Your task to perform on an android device: open app "Facebook Lite" (install if not already installed) Image 0: 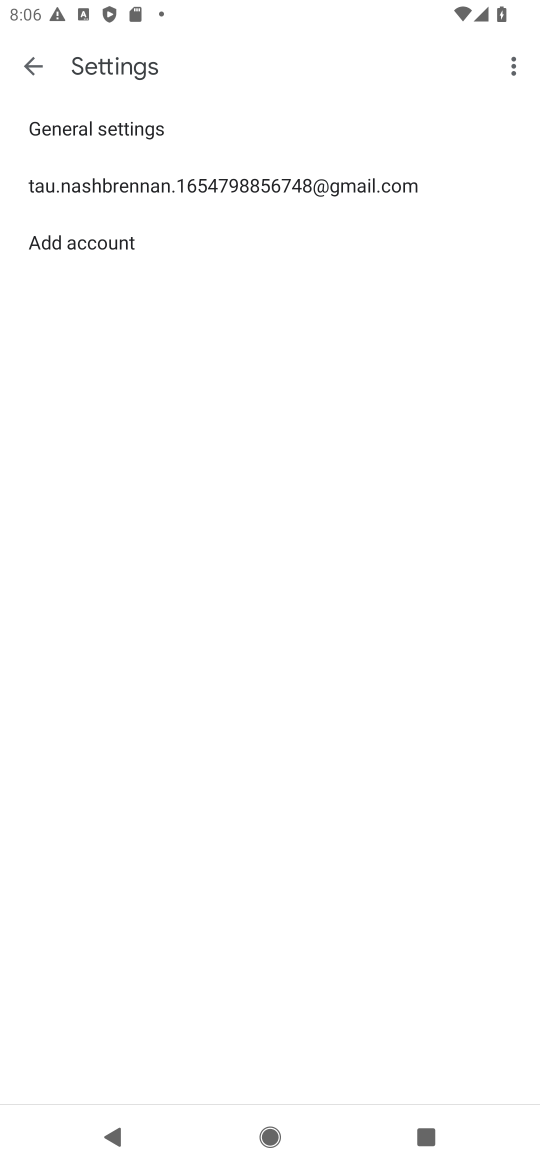
Step 0: press home button
Your task to perform on an android device: open app "Facebook Lite" (install if not already installed) Image 1: 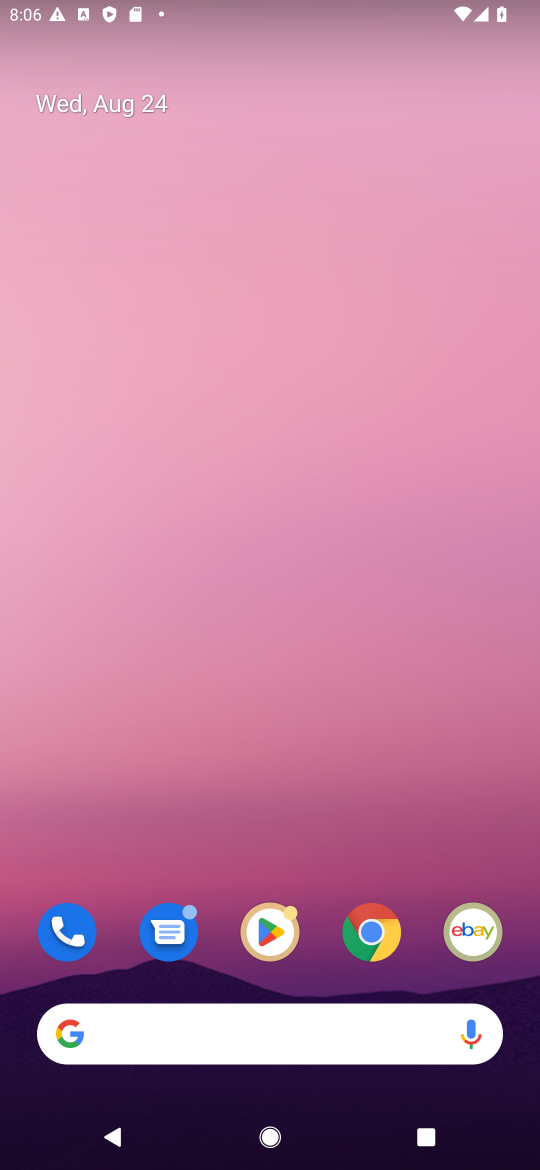
Step 1: click (272, 929)
Your task to perform on an android device: open app "Facebook Lite" (install if not already installed) Image 2: 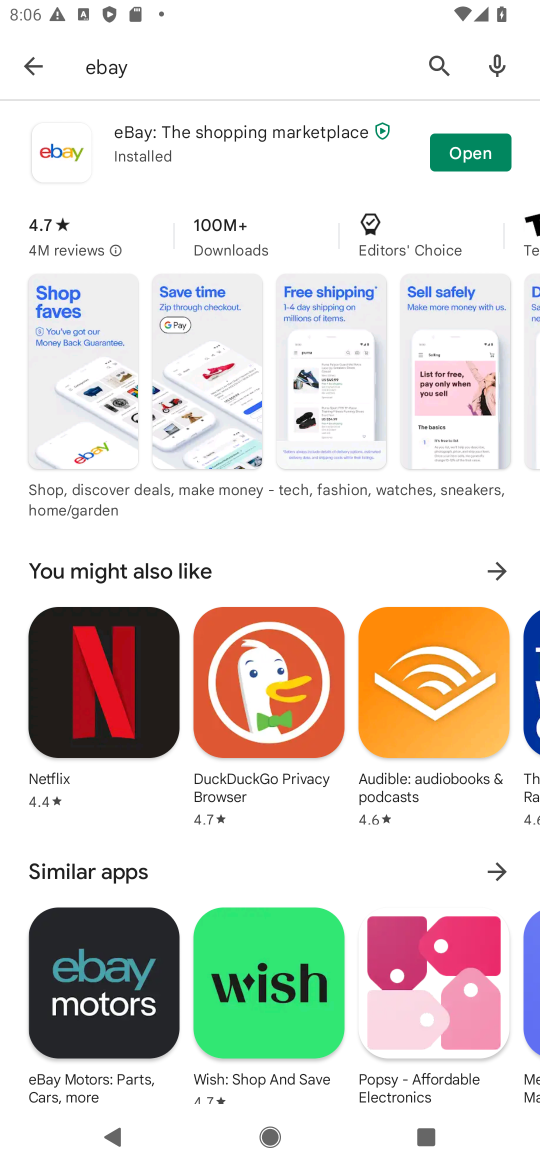
Step 2: click (178, 67)
Your task to perform on an android device: open app "Facebook Lite" (install if not already installed) Image 3: 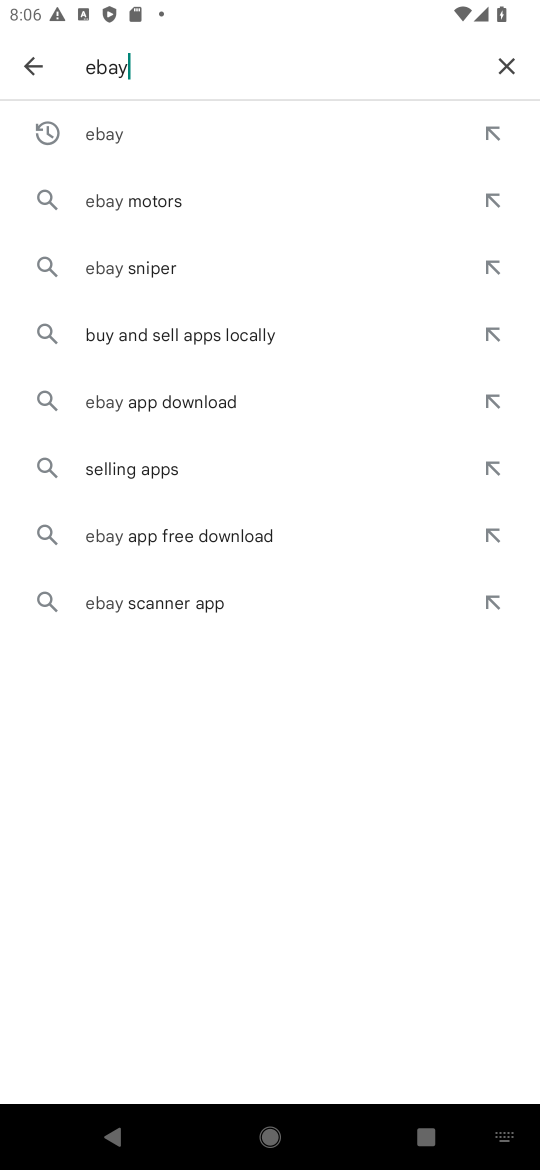
Step 3: click (507, 70)
Your task to perform on an android device: open app "Facebook Lite" (install if not already installed) Image 4: 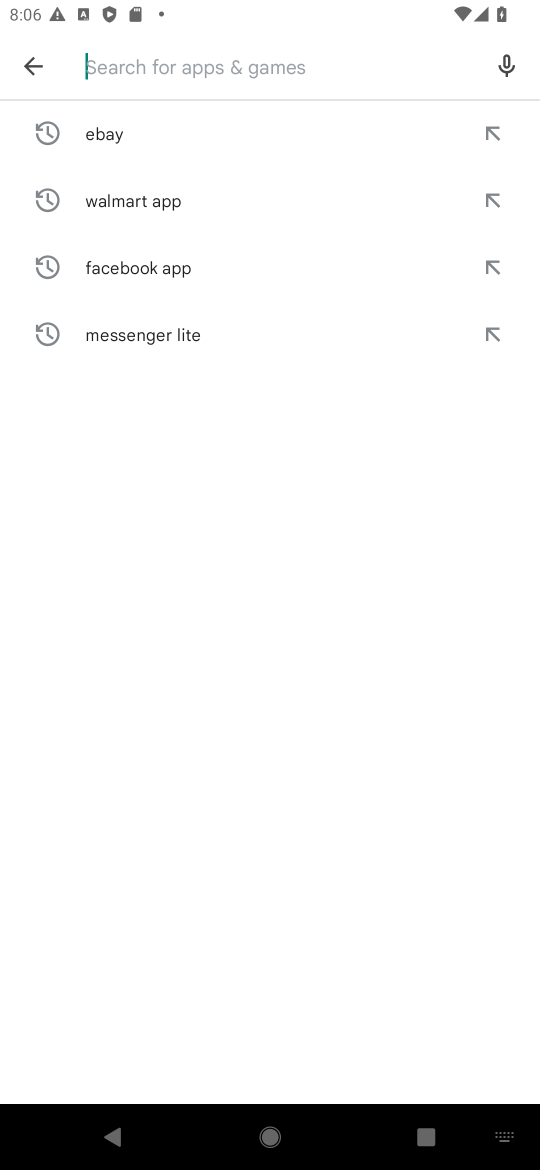
Step 4: type "facebook lite"
Your task to perform on an android device: open app "Facebook Lite" (install if not already installed) Image 5: 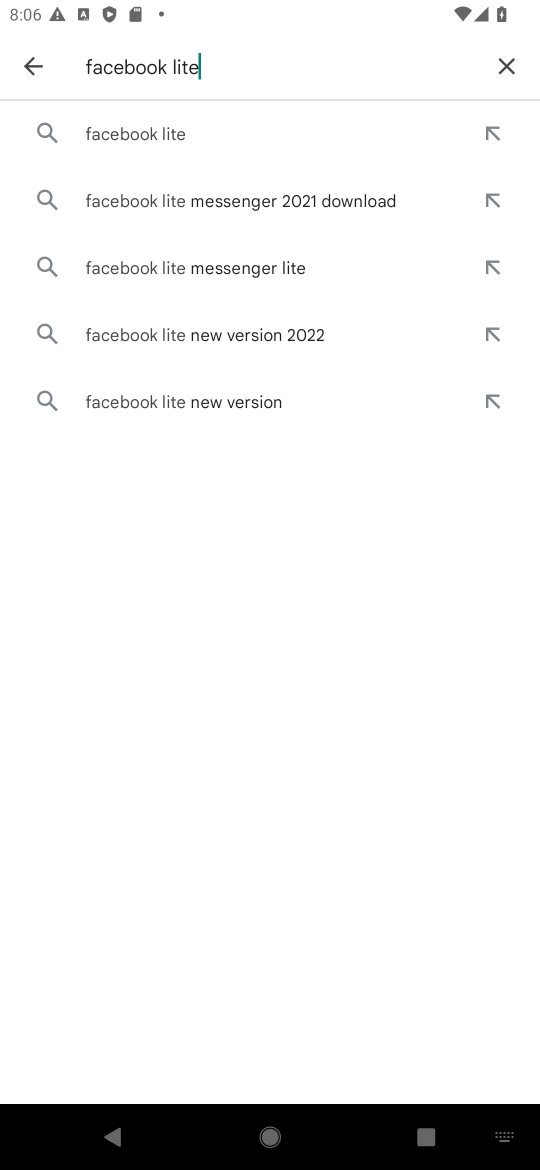
Step 5: click (127, 147)
Your task to perform on an android device: open app "Facebook Lite" (install if not already installed) Image 6: 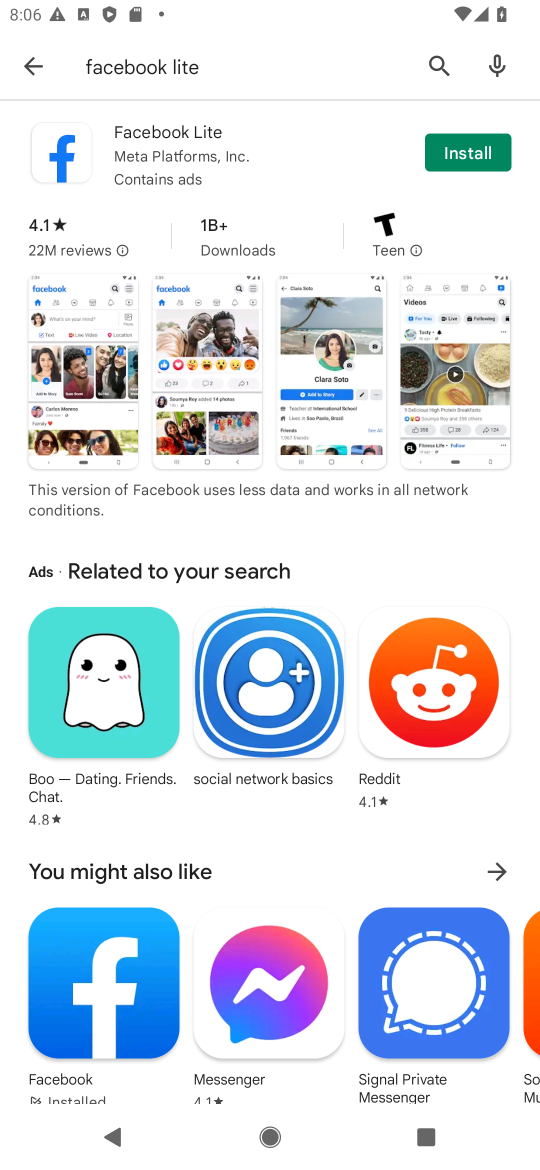
Step 6: click (469, 152)
Your task to perform on an android device: open app "Facebook Lite" (install if not already installed) Image 7: 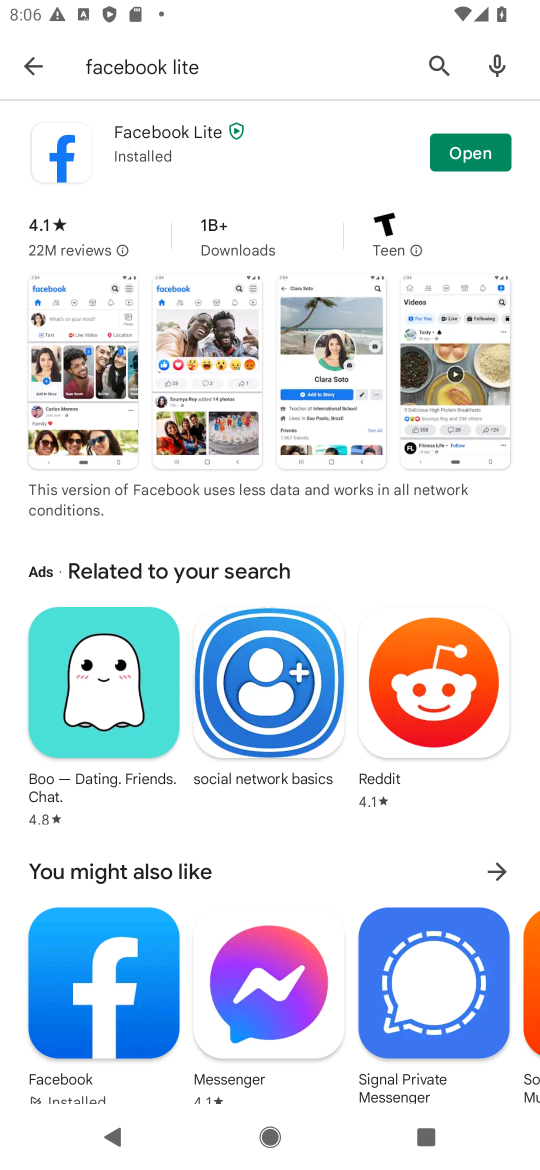
Step 7: click (465, 141)
Your task to perform on an android device: open app "Facebook Lite" (install if not already installed) Image 8: 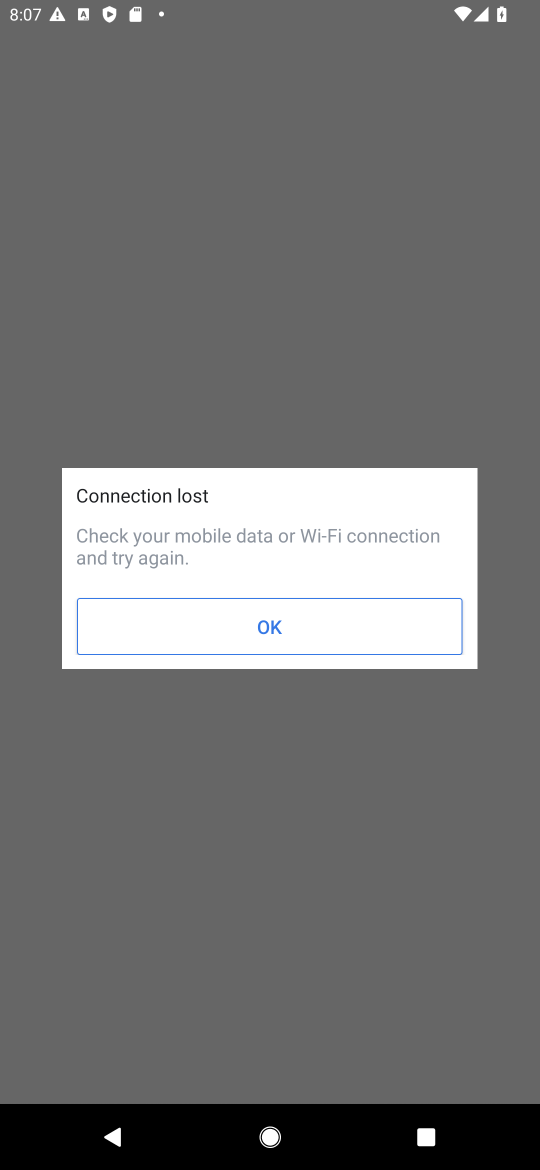
Step 8: click (332, 637)
Your task to perform on an android device: open app "Facebook Lite" (install if not already installed) Image 9: 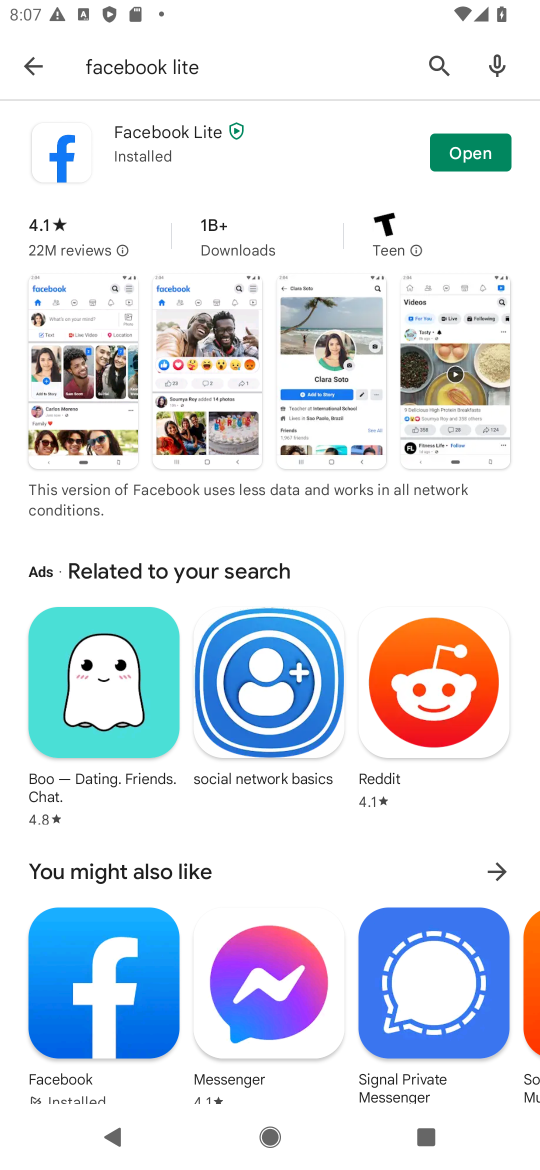
Step 9: task complete